Your task to perform on an android device: turn off priority inbox in the gmail app Image 0: 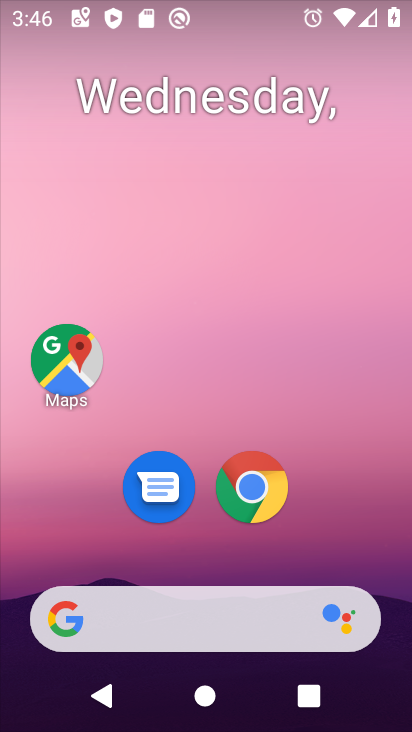
Step 0: drag from (378, 559) to (360, 168)
Your task to perform on an android device: turn off priority inbox in the gmail app Image 1: 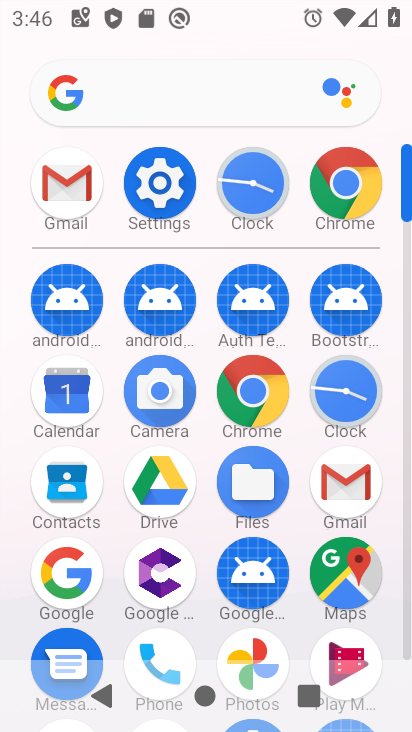
Step 1: click (350, 479)
Your task to perform on an android device: turn off priority inbox in the gmail app Image 2: 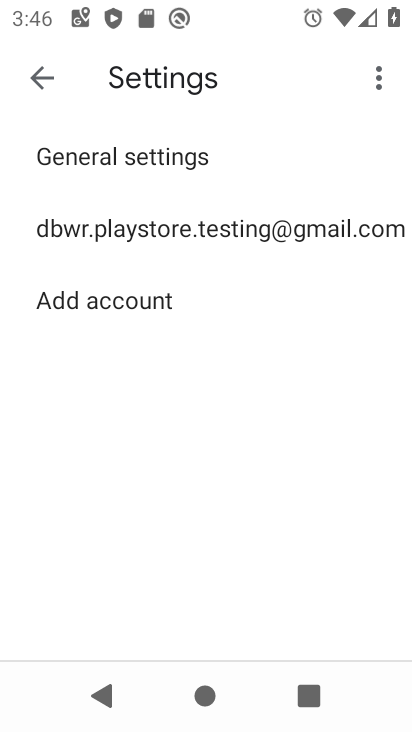
Step 2: click (194, 236)
Your task to perform on an android device: turn off priority inbox in the gmail app Image 3: 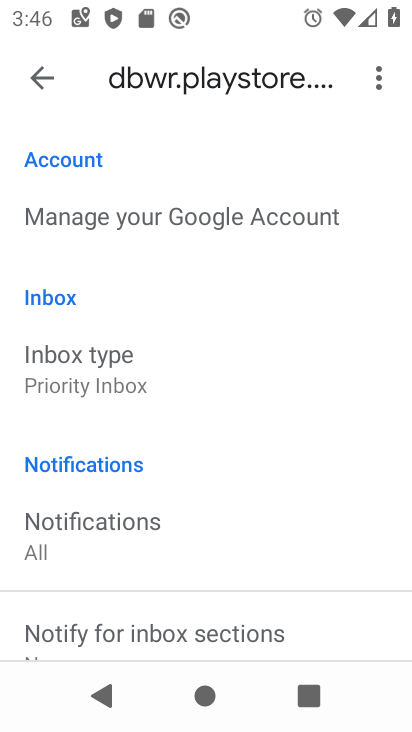
Step 3: drag from (298, 453) to (314, 376)
Your task to perform on an android device: turn off priority inbox in the gmail app Image 4: 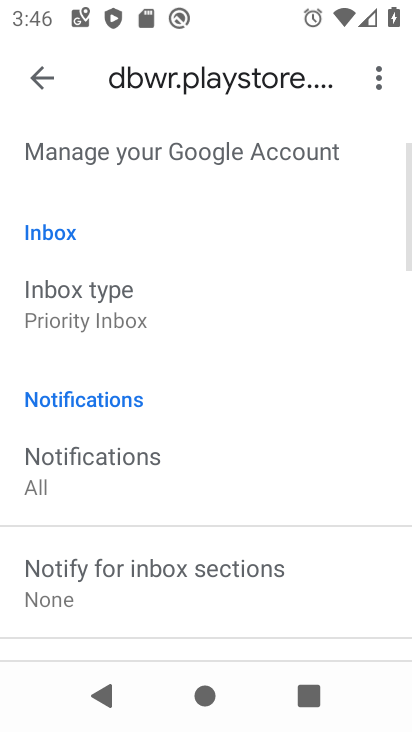
Step 4: drag from (318, 470) to (331, 366)
Your task to perform on an android device: turn off priority inbox in the gmail app Image 5: 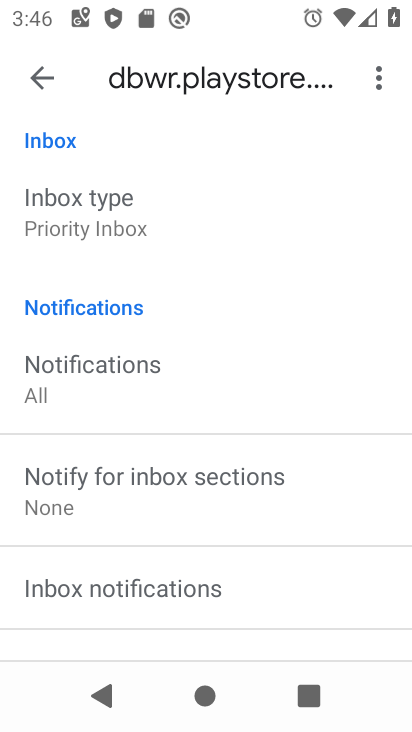
Step 5: drag from (348, 518) to (358, 407)
Your task to perform on an android device: turn off priority inbox in the gmail app Image 6: 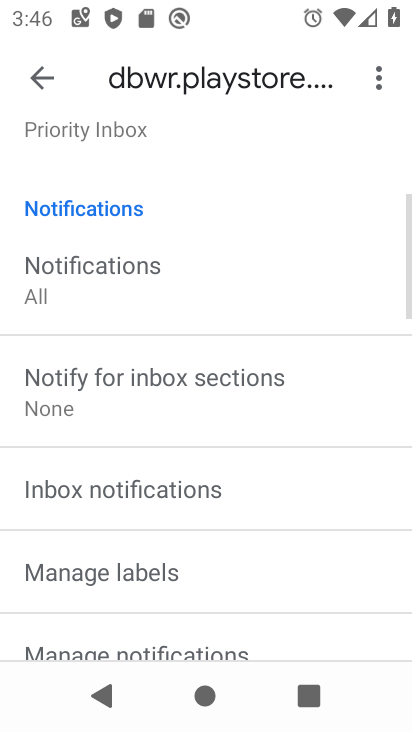
Step 6: drag from (350, 526) to (340, 414)
Your task to perform on an android device: turn off priority inbox in the gmail app Image 7: 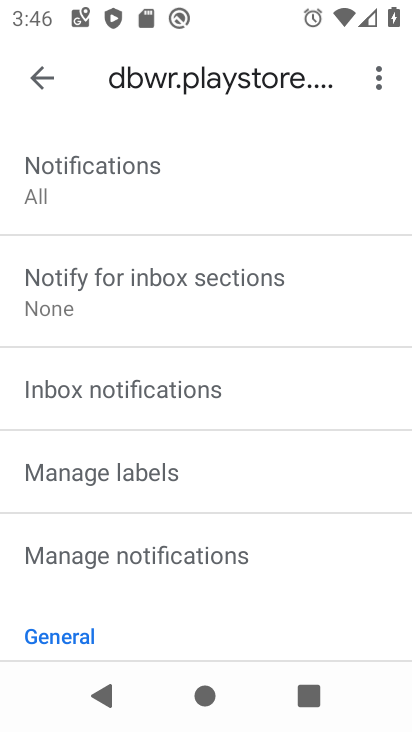
Step 7: drag from (333, 546) to (346, 442)
Your task to perform on an android device: turn off priority inbox in the gmail app Image 8: 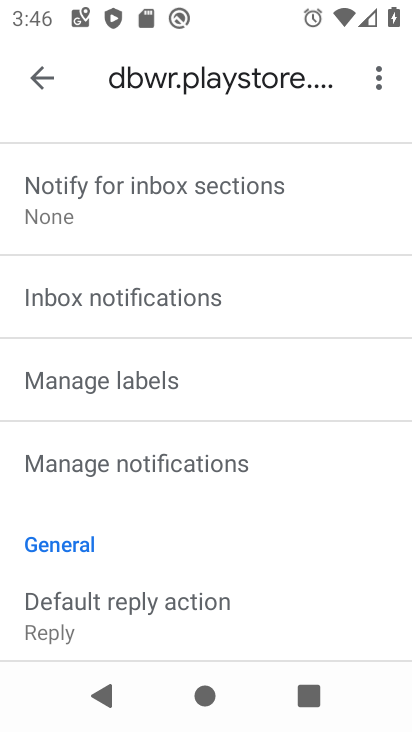
Step 8: drag from (350, 551) to (350, 421)
Your task to perform on an android device: turn off priority inbox in the gmail app Image 9: 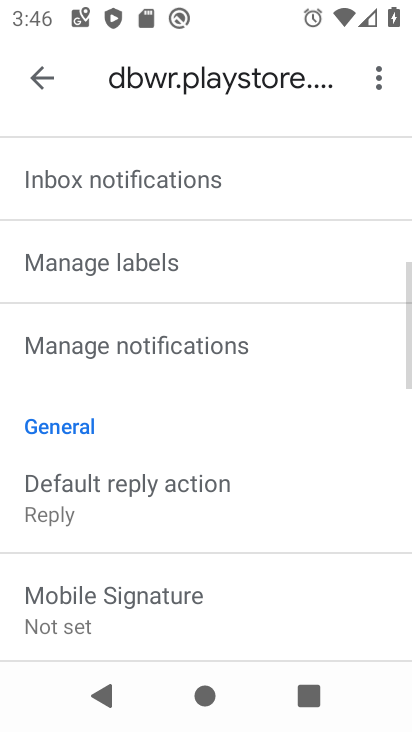
Step 9: drag from (350, 334) to (341, 468)
Your task to perform on an android device: turn off priority inbox in the gmail app Image 10: 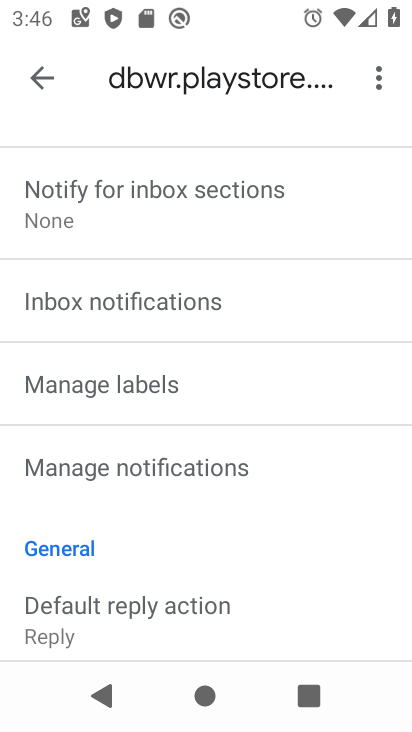
Step 10: drag from (347, 348) to (349, 457)
Your task to perform on an android device: turn off priority inbox in the gmail app Image 11: 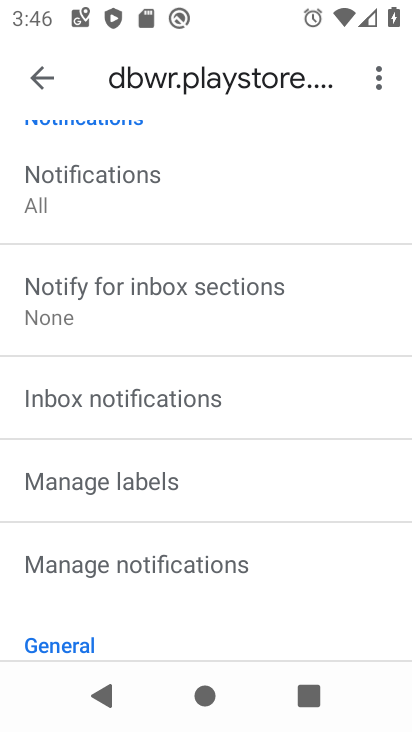
Step 11: drag from (329, 318) to (324, 418)
Your task to perform on an android device: turn off priority inbox in the gmail app Image 12: 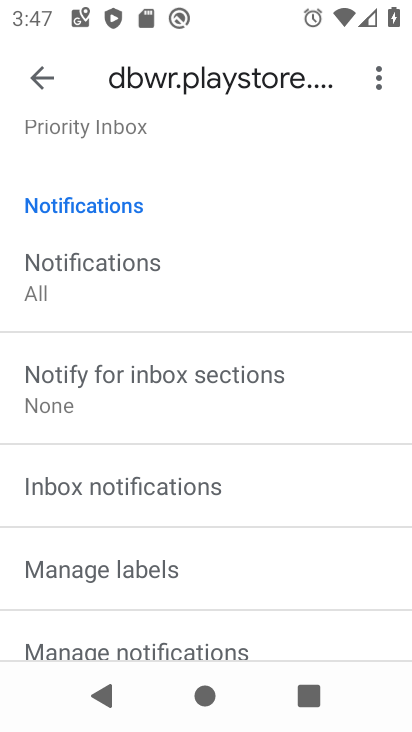
Step 12: drag from (321, 280) to (301, 392)
Your task to perform on an android device: turn off priority inbox in the gmail app Image 13: 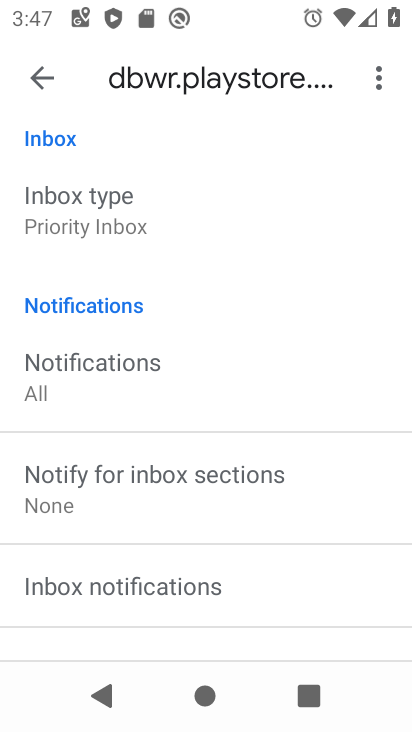
Step 13: drag from (315, 253) to (298, 375)
Your task to perform on an android device: turn off priority inbox in the gmail app Image 14: 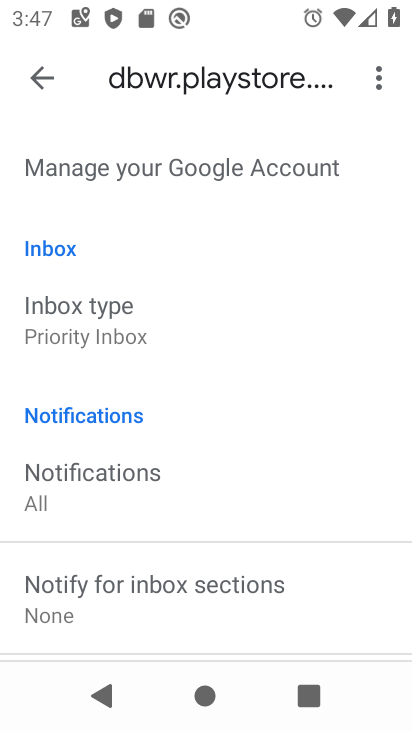
Step 14: click (86, 334)
Your task to perform on an android device: turn off priority inbox in the gmail app Image 15: 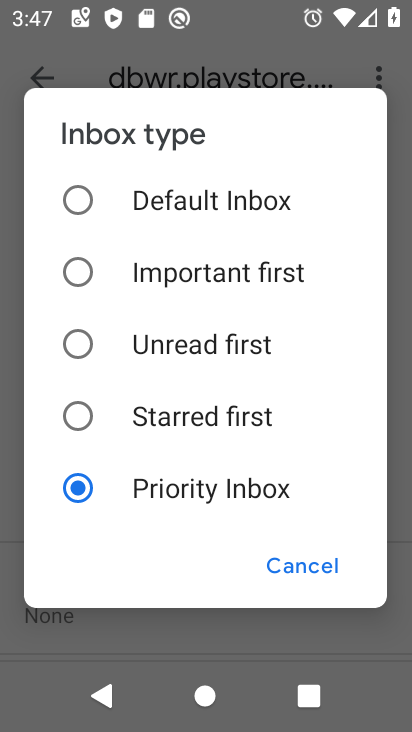
Step 15: click (80, 200)
Your task to perform on an android device: turn off priority inbox in the gmail app Image 16: 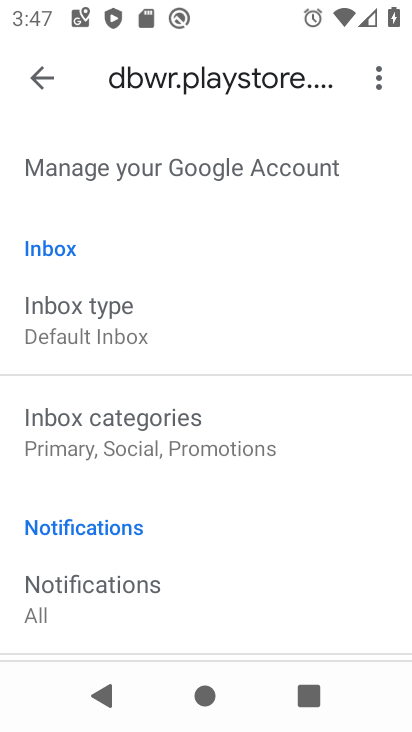
Step 16: task complete